Your task to perform on an android device: Open the calendar app, open the side menu, and click the "Day" option Image 0: 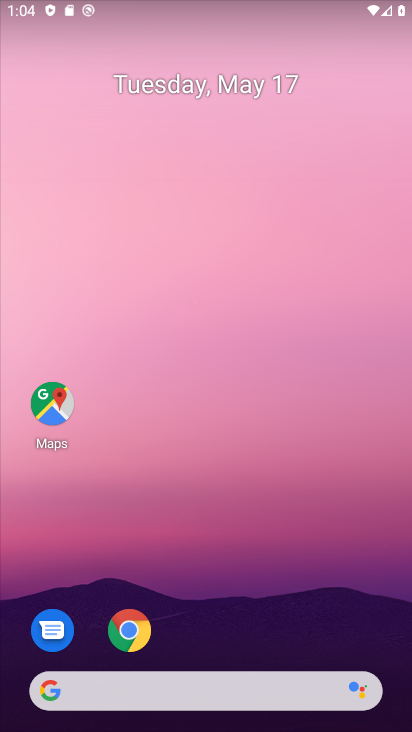
Step 0: drag from (281, 608) to (179, 14)
Your task to perform on an android device: Open the calendar app, open the side menu, and click the "Day" option Image 1: 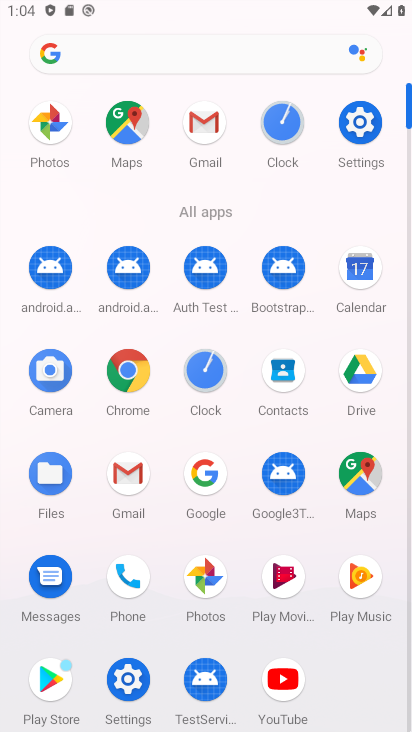
Step 1: click (363, 273)
Your task to perform on an android device: Open the calendar app, open the side menu, and click the "Day" option Image 2: 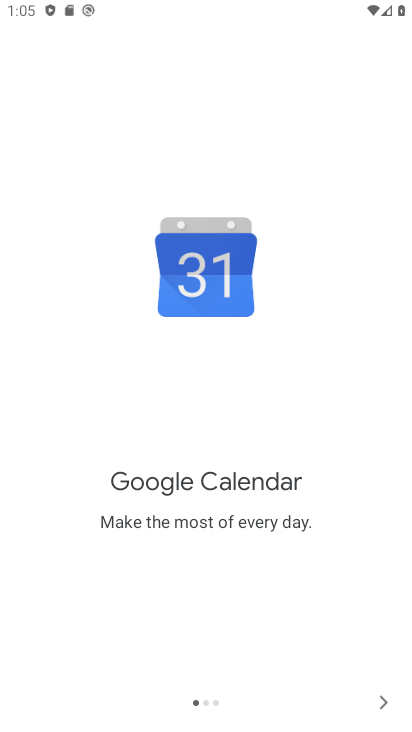
Step 2: click (381, 698)
Your task to perform on an android device: Open the calendar app, open the side menu, and click the "Day" option Image 3: 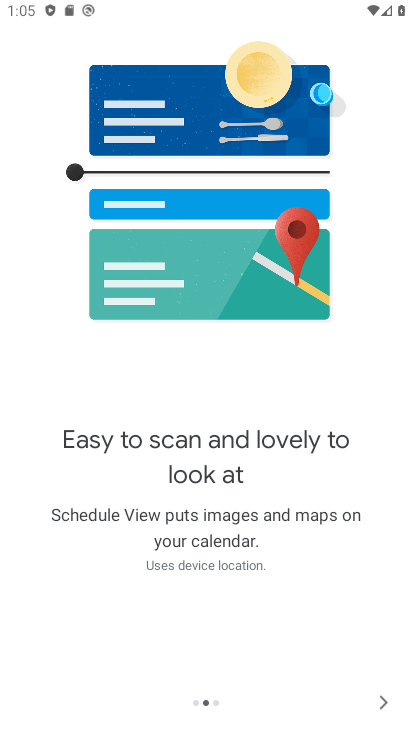
Step 3: click (381, 698)
Your task to perform on an android device: Open the calendar app, open the side menu, and click the "Day" option Image 4: 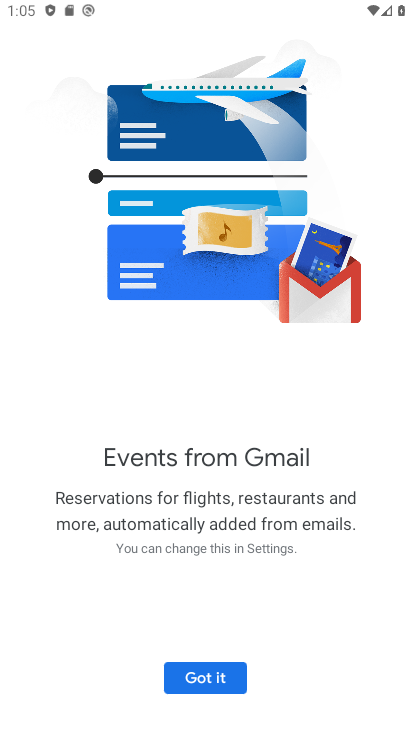
Step 4: click (213, 668)
Your task to perform on an android device: Open the calendar app, open the side menu, and click the "Day" option Image 5: 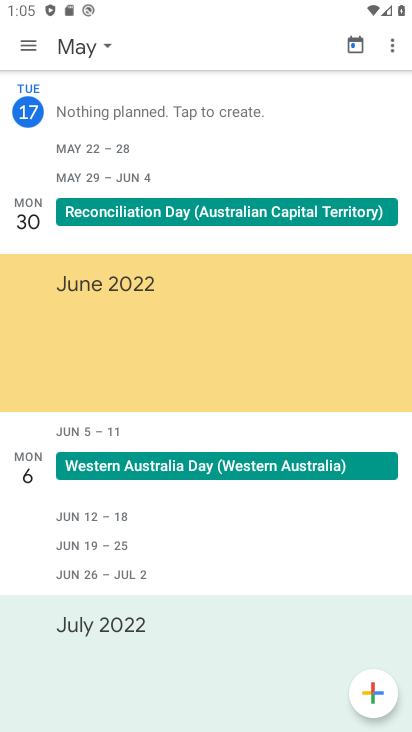
Step 5: click (35, 47)
Your task to perform on an android device: Open the calendar app, open the side menu, and click the "Day" option Image 6: 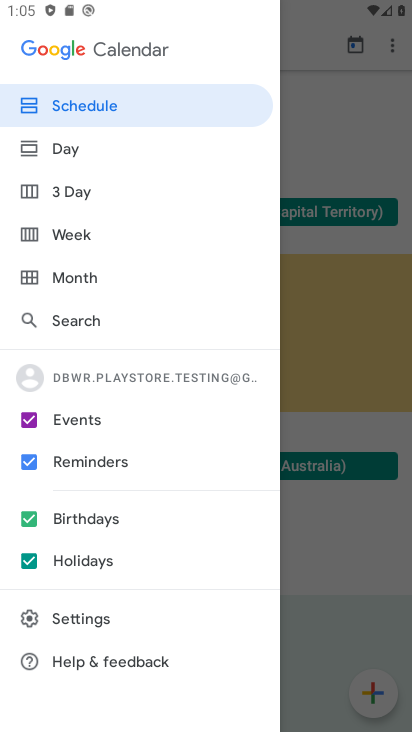
Step 6: click (72, 149)
Your task to perform on an android device: Open the calendar app, open the side menu, and click the "Day" option Image 7: 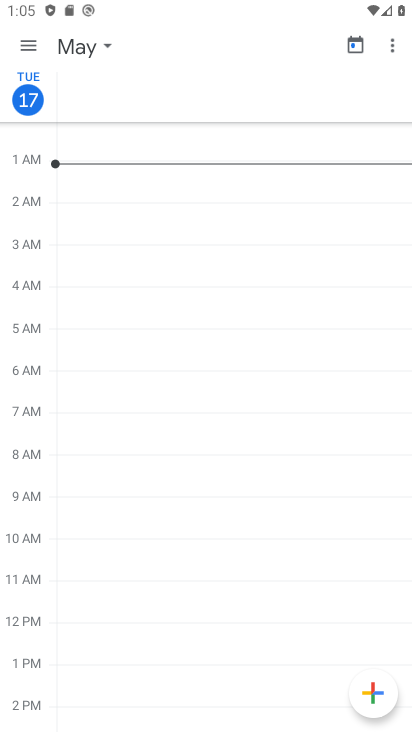
Step 7: task complete